Your task to perform on an android device: toggle wifi Image 0: 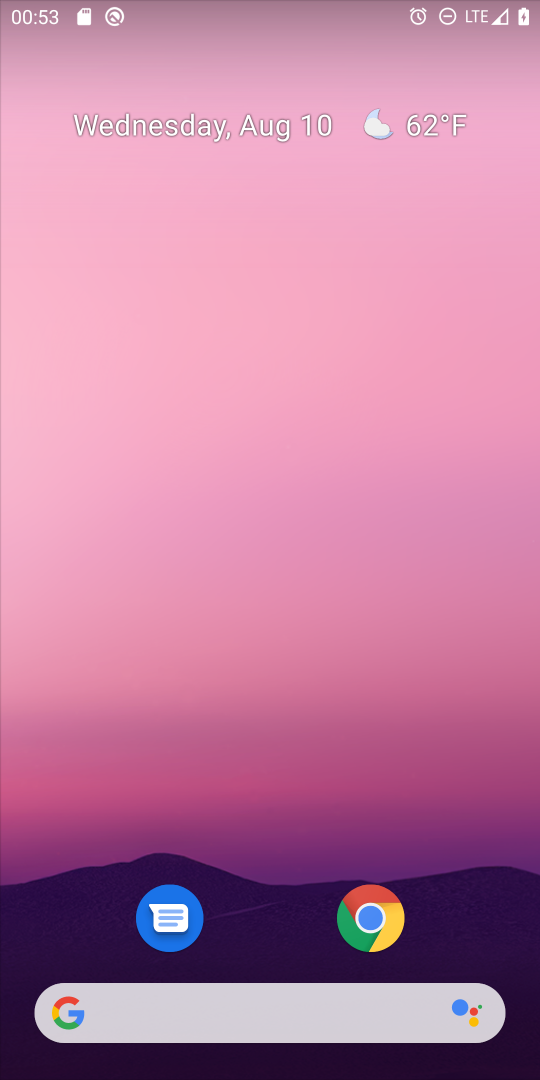
Step 0: drag from (266, 908) to (383, 15)
Your task to perform on an android device: toggle wifi Image 1: 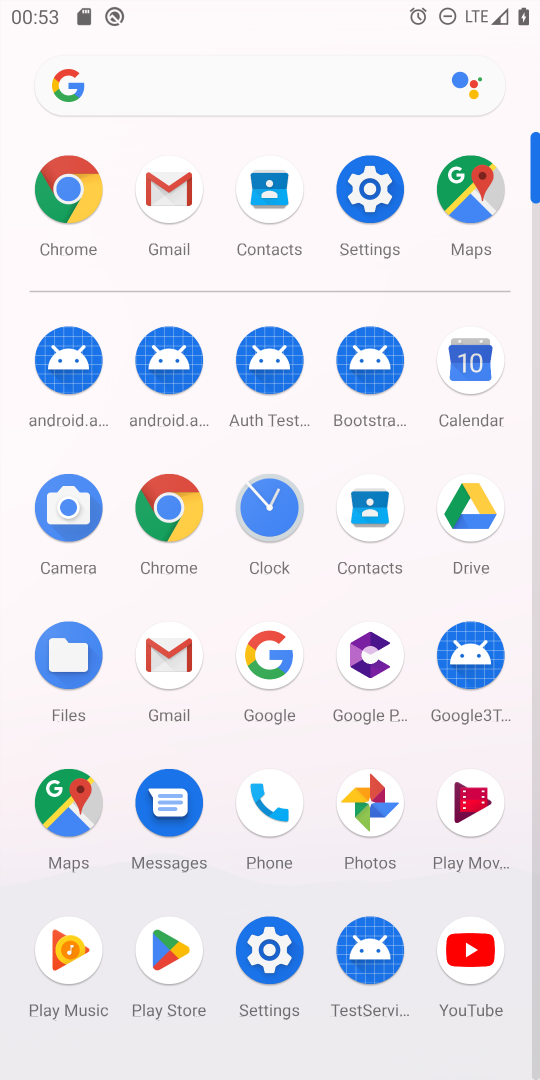
Step 1: click (255, 948)
Your task to perform on an android device: toggle wifi Image 2: 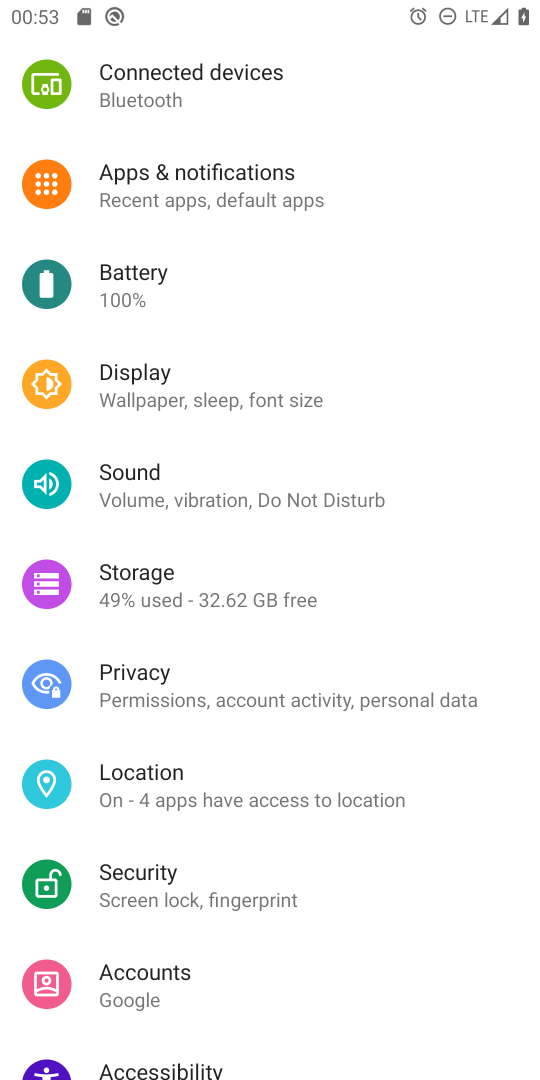
Step 2: drag from (250, 116) to (296, 627)
Your task to perform on an android device: toggle wifi Image 3: 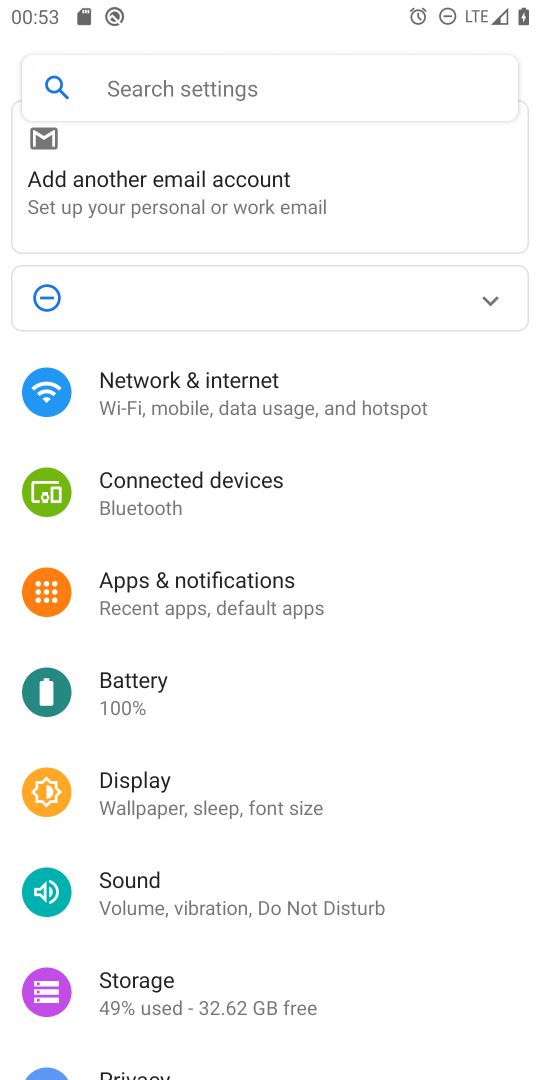
Step 3: click (204, 394)
Your task to perform on an android device: toggle wifi Image 4: 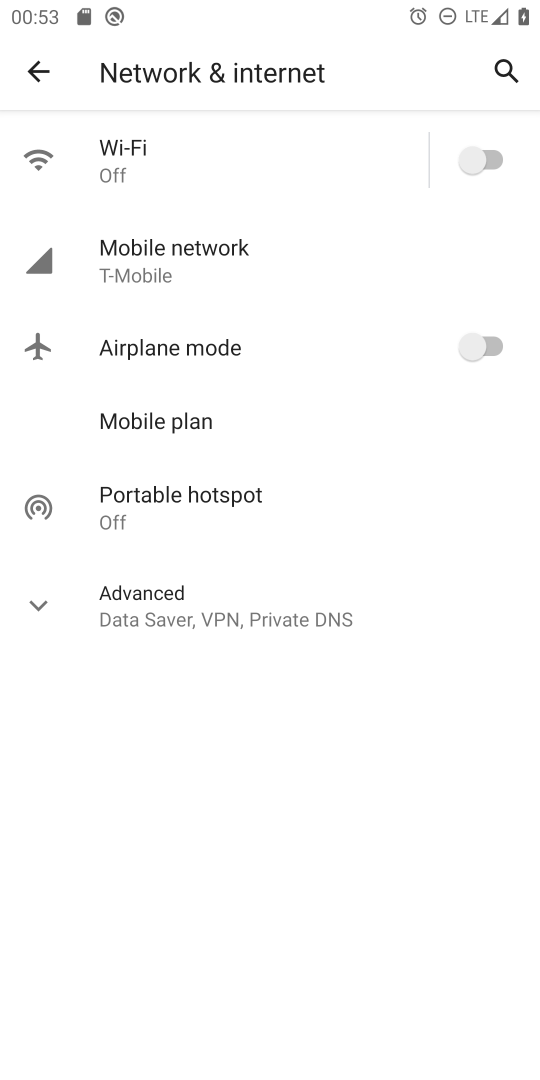
Step 4: click (252, 163)
Your task to perform on an android device: toggle wifi Image 5: 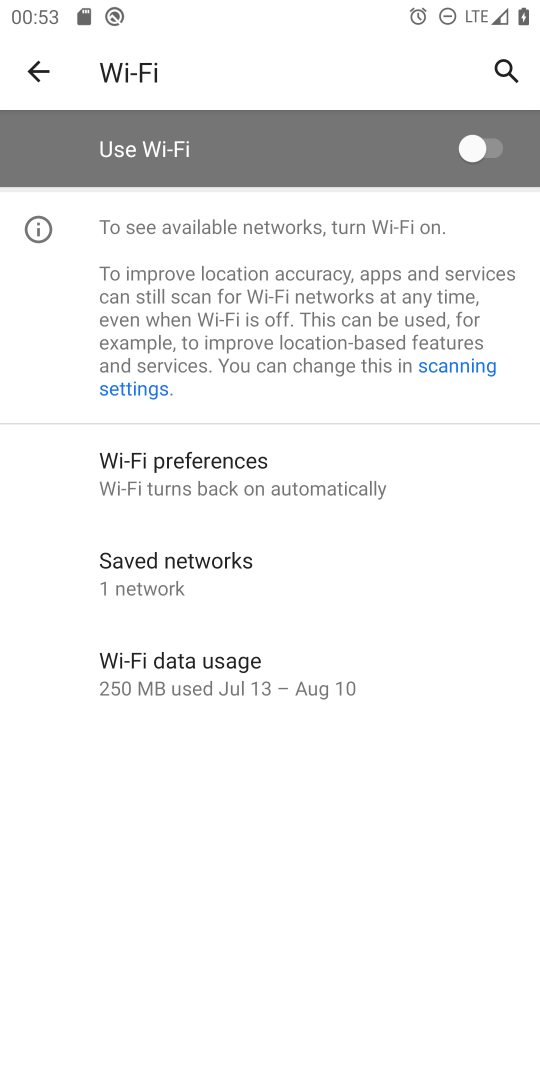
Step 5: click (467, 154)
Your task to perform on an android device: toggle wifi Image 6: 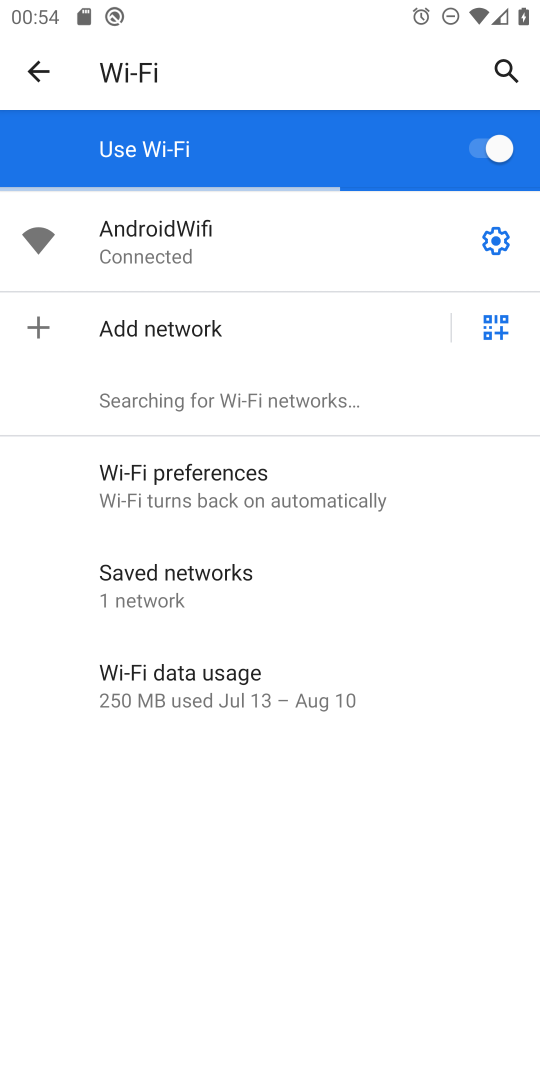
Step 6: task complete